Your task to perform on an android device: Open settings on Google Maps Image 0: 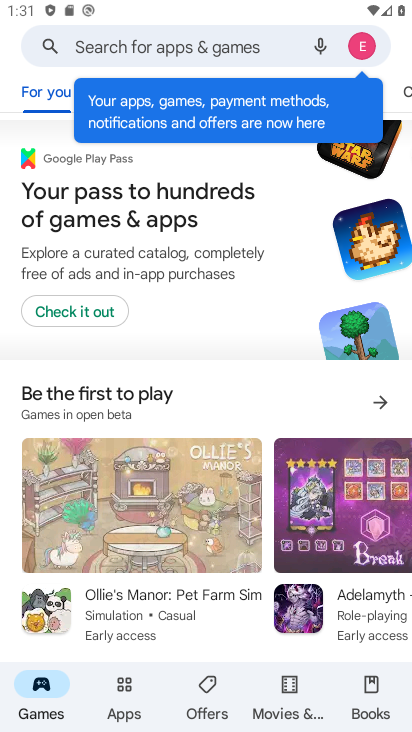
Step 0: press home button
Your task to perform on an android device: Open settings on Google Maps Image 1: 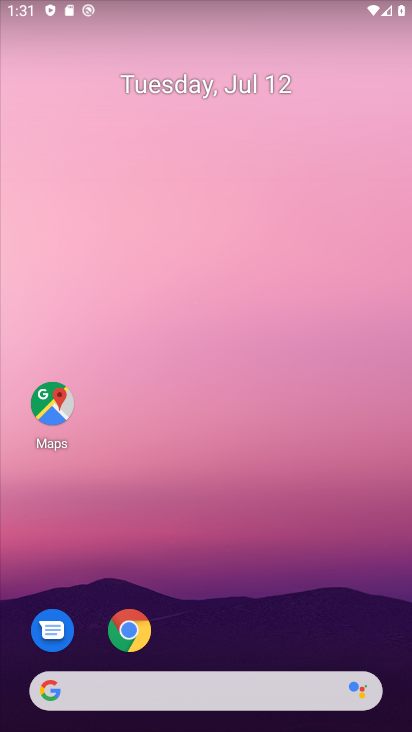
Step 1: click (60, 400)
Your task to perform on an android device: Open settings on Google Maps Image 2: 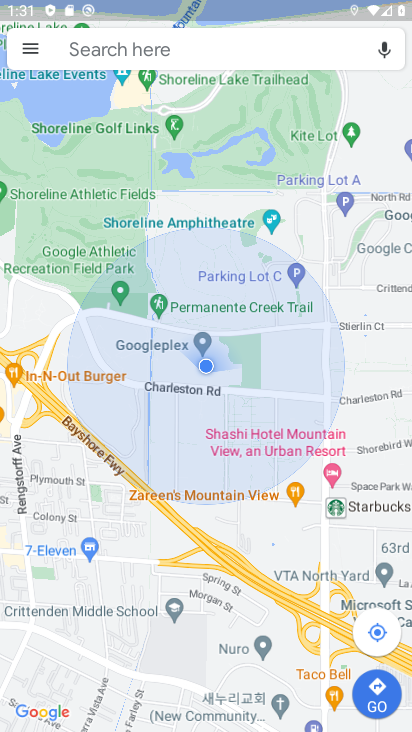
Step 2: click (36, 41)
Your task to perform on an android device: Open settings on Google Maps Image 3: 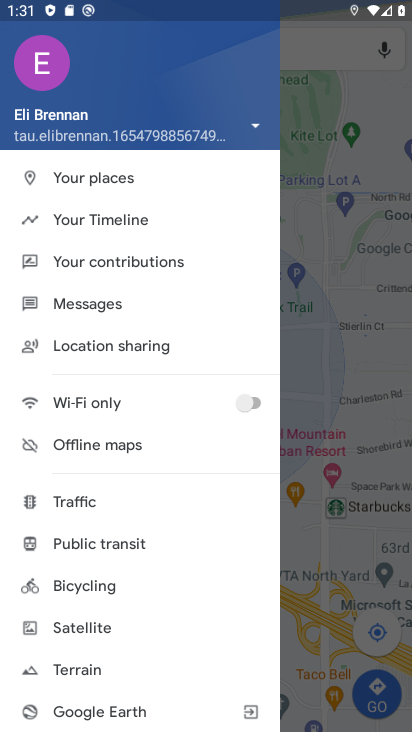
Step 3: drag from (181, 642) to (161, 319)
Your task to perform on an android device: Open settings on Google Maps Image 4: 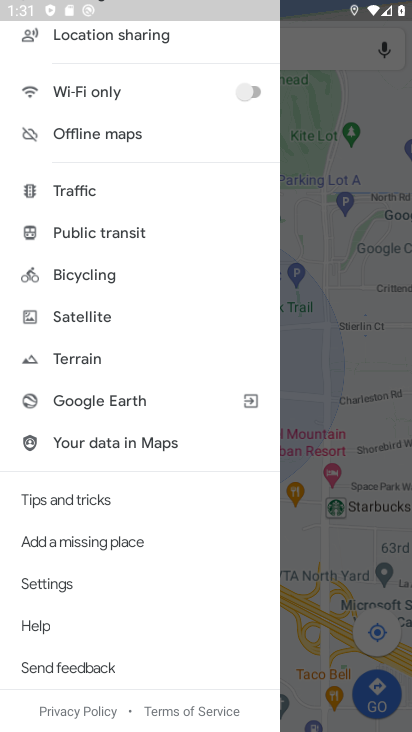
Step 4: click (47, 586)
Your task to perform on an android device: Open settings on Google Maps Image 5: 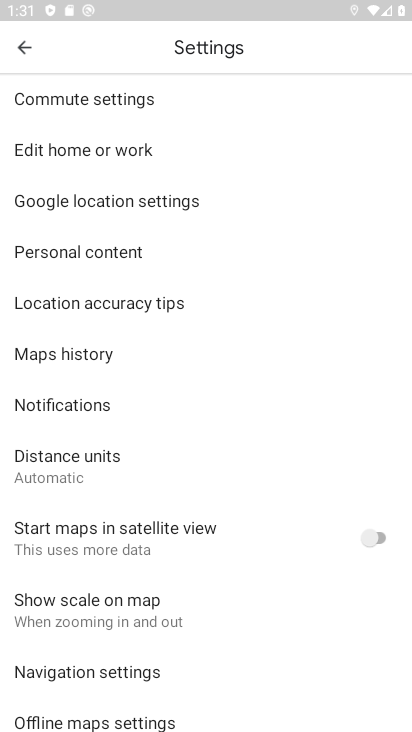
Step 5: task complete